Your task to perform on an android device: open wifi settings Image 0: 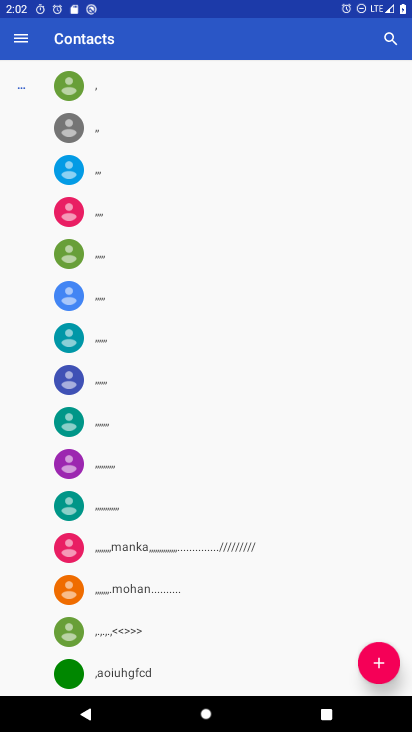
Step 0: press home button
Your task to perform on an android device: open wifi settings Image 1: 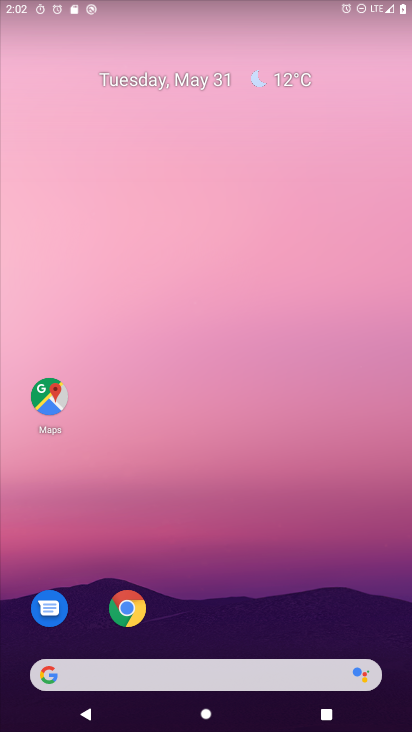
Step 1: drag from (252, 645) to (244, 1)
Your task to perform on an android device: open wifi settings Image 2: 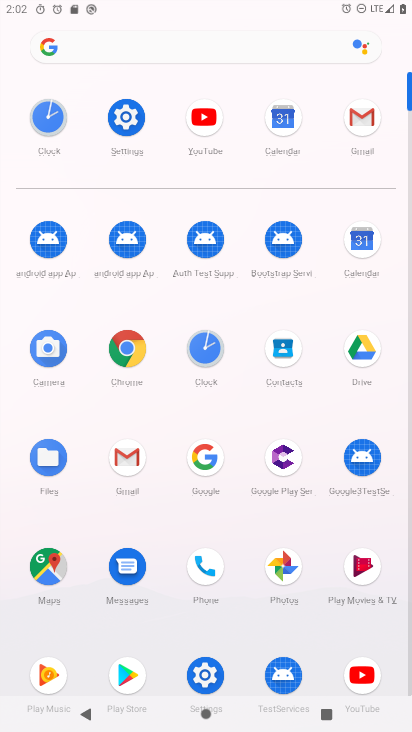
Step 2: click (126, 117)
Your task to perform on an android device: open wifi settings Image 3: 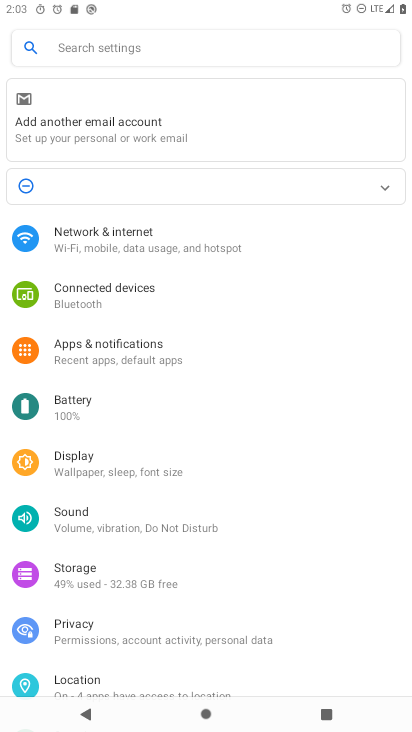
Step 3: click (69, 246)
Your task to perform on an android device: open wifi settings Image 4: 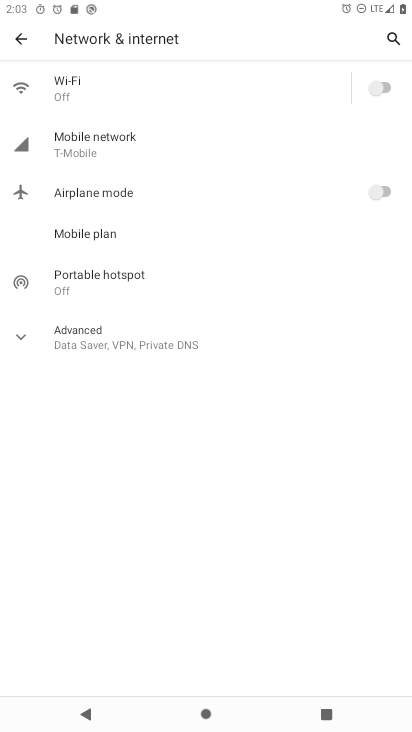
Step 4: click (17, 91)
Your task to perform on an android device: open wifi settings Image 5: 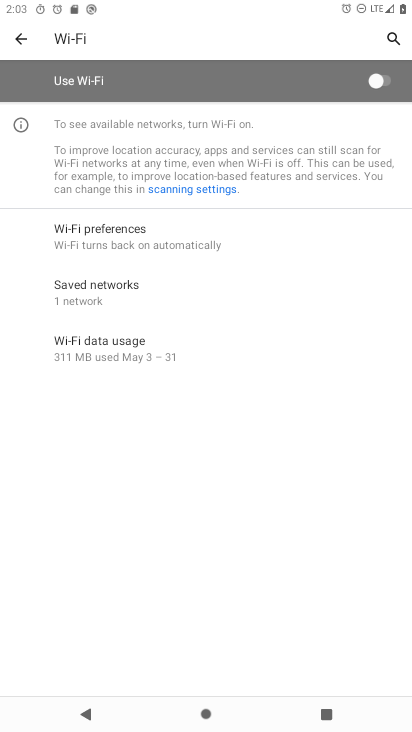
Step 5: task complete